Your task to perform on an android device: stop showing notifications on the lock screen Image 0: 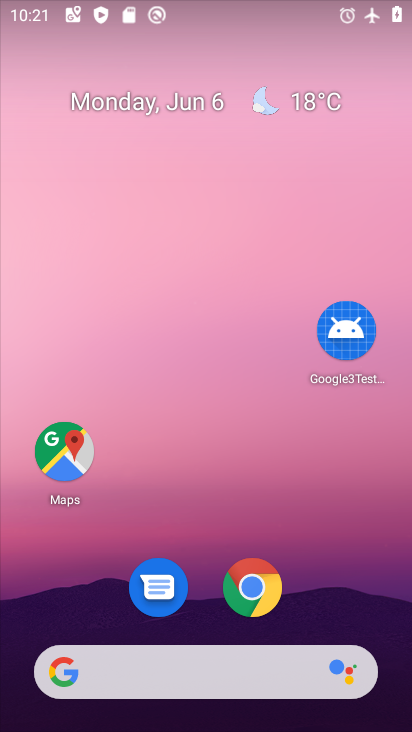
Step 0: drag from (329, 555) to (358, 141)
Your task to perform on an android device: stop showing notifications on the lock screen Image 1: 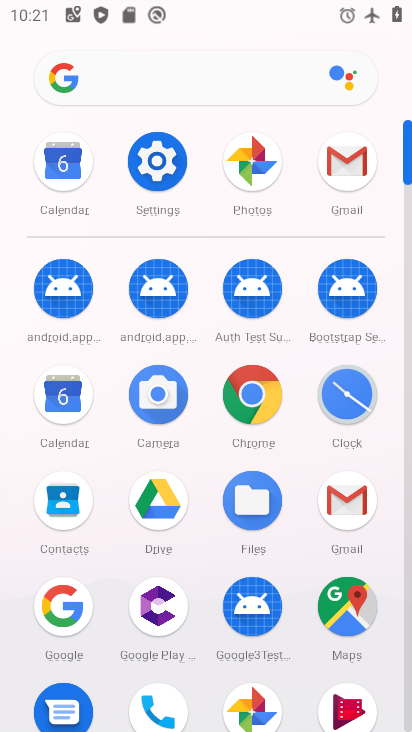
Step 1: click (157, 158)
Your task to perform on an android device: stop showing notifications on the lock screen Image 2: 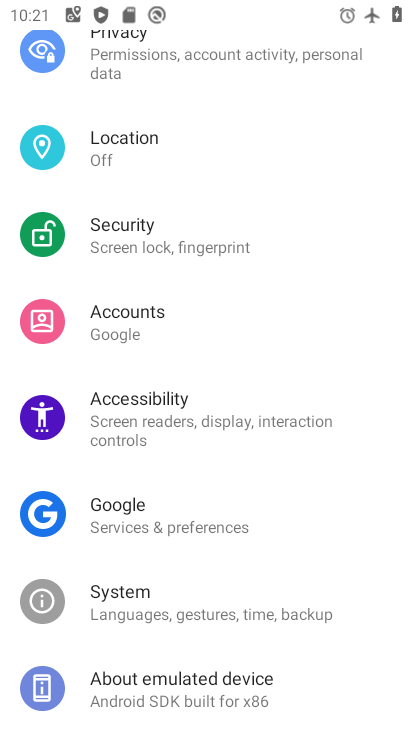
Step 2: click (147, 158)
Your task to perform on an android device: stop showing notifications on the lock screen Image 3: 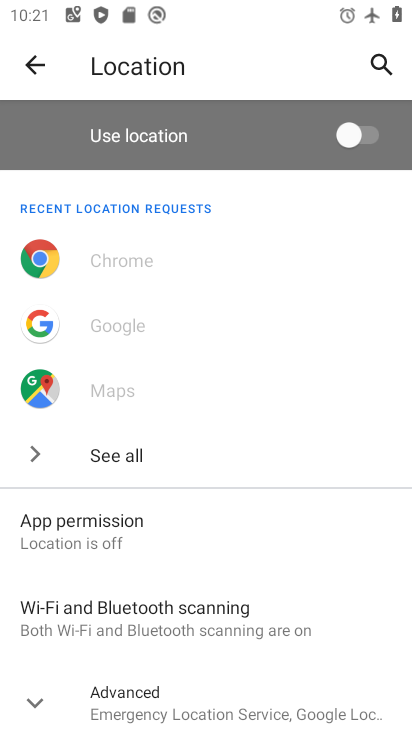
Step 3: click (125, 684)
Your task to perform on an android device: stop showing notifications on the lock screen Image 4: 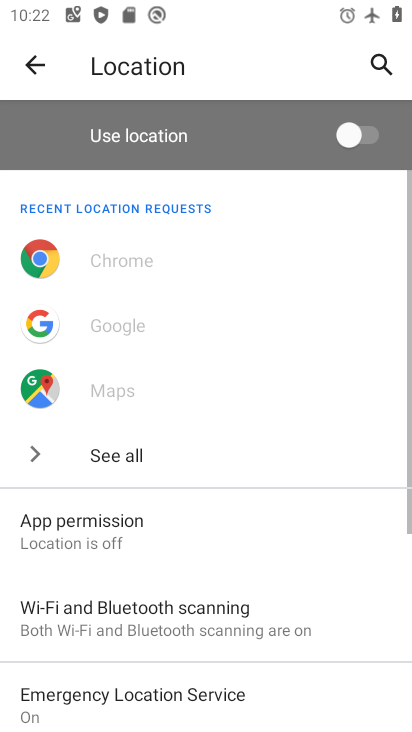
Step 4: drag from (180, 678) to (207, 312)
Your task to perform on an android device: stop showing notifications on the lock screen Image 5: 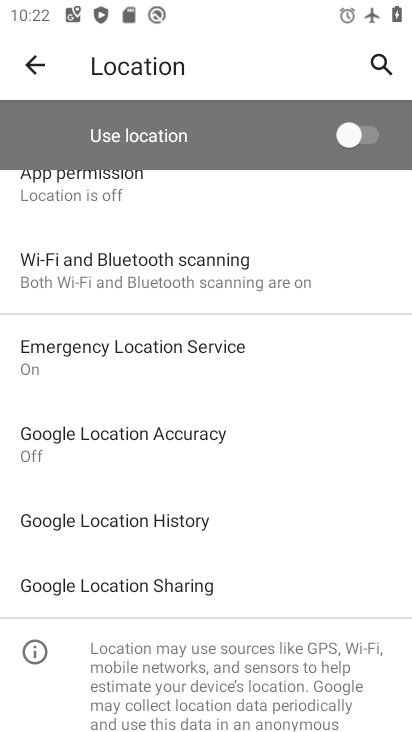
Step 5: drag from (233, 356) to (211, 728)
Your task to perform on an android device: stop showing notifications on the lock screen Image 6: 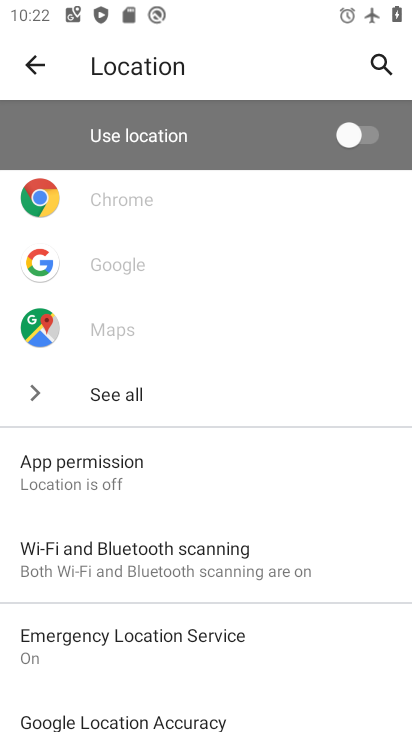
Step 6: drag from (283, 329) to (346, 287)
Your task to perform on an android device: stop showing notifications on the lock screen Image 7: 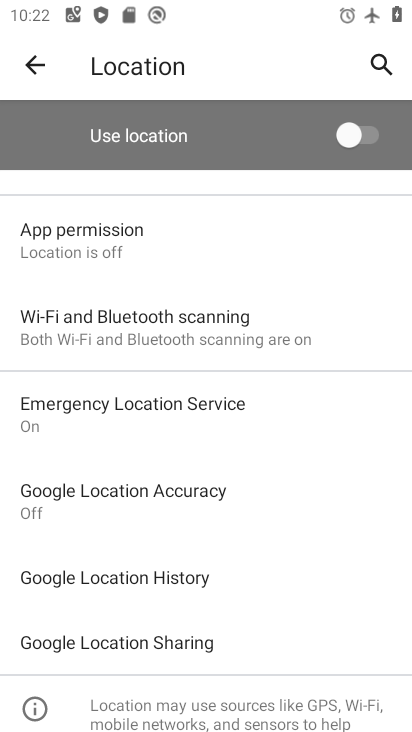
Step 7: click (25, 60)
Your task to perform on an android device: stop showing notifications on the lock screen Image 8: 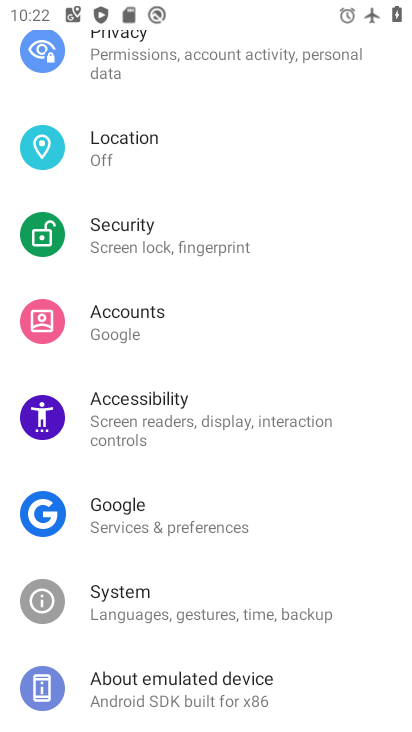
Step 8: drag from (191, 111) to (145, 589)
Your task to perform on an android device: stop showing notifications on the lock screen Image 9: 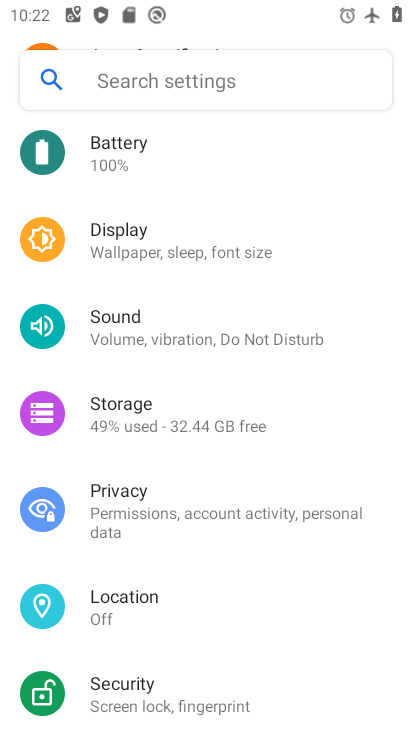
Step 9: drag from (205, 187) to (192, 658)
Your task to perform on an android device: stop showing notifications on the lock screen Image 10: 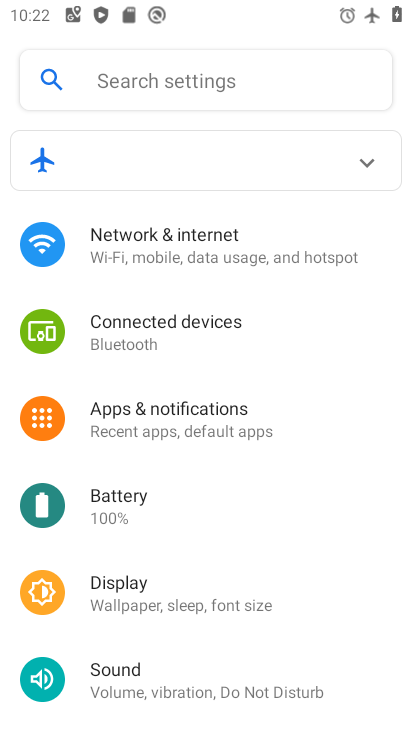
Step 10: click (208, 411)
Your task to perform on an android device: stop showing notifications on the lock screen Image 11: 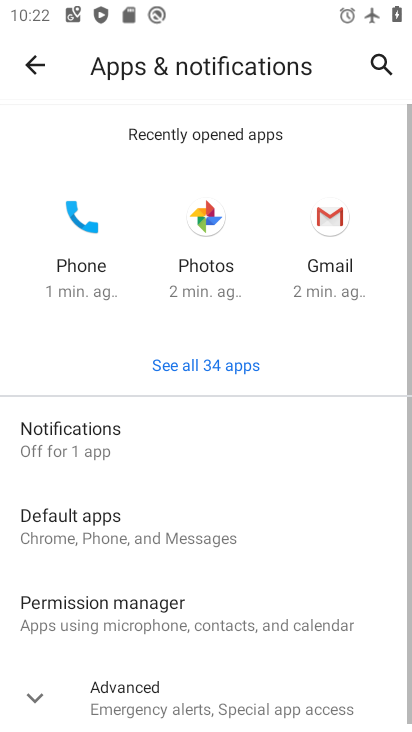
Step 11: click (95, 441)
Your task to perform on an android device: stop showing notifications on the lock screen Image 12: 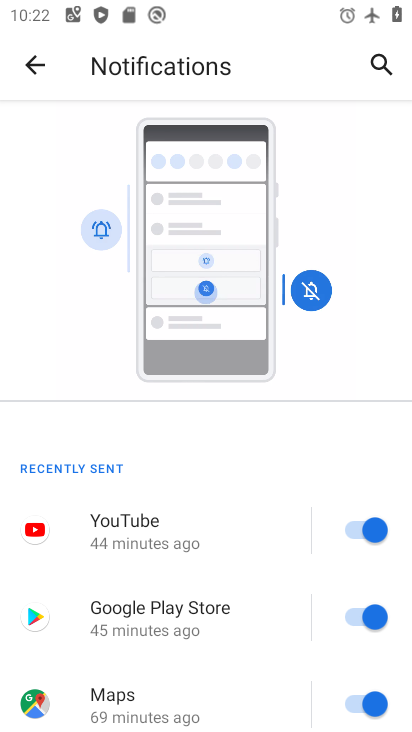
Step 12: drag from (171, 615) to (286, 149)
Your task to perform on an android device: stop showing notifications on the lock screen Image 13: 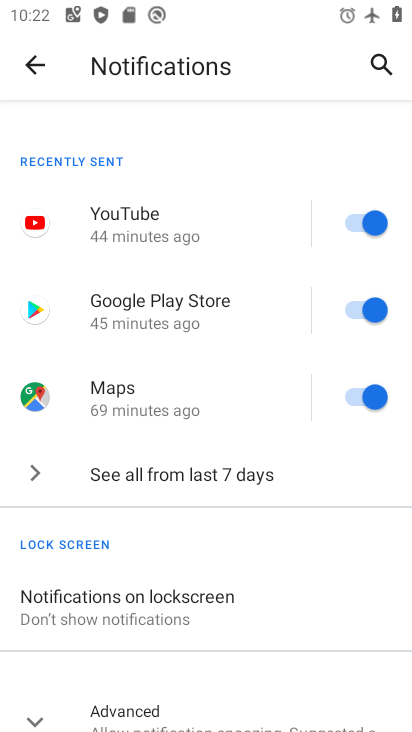
Step 13: click (160, 607)
Your task to perform on an android device: stop showing notifications on the lock screen Image 14: 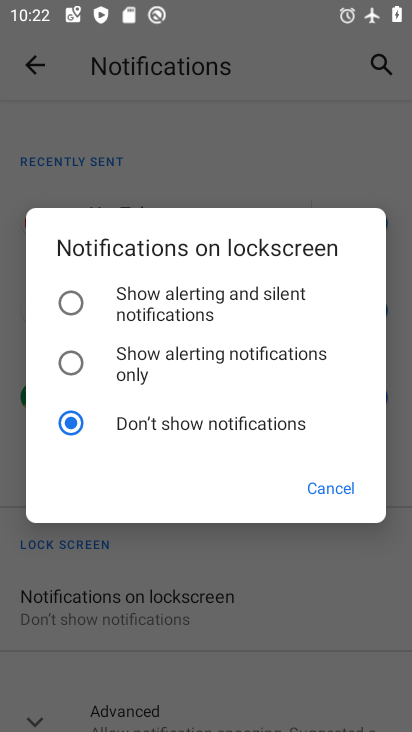
Step 14: task complete